Your task to perform on an android device: Go to Reddit.com Image 0: 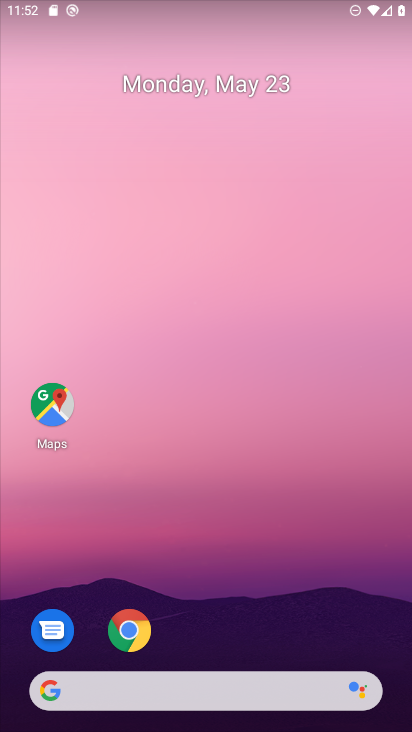
Step 0: click (134, 632)
Your task to perform on an android device: Go to Reddit.com Image 1: 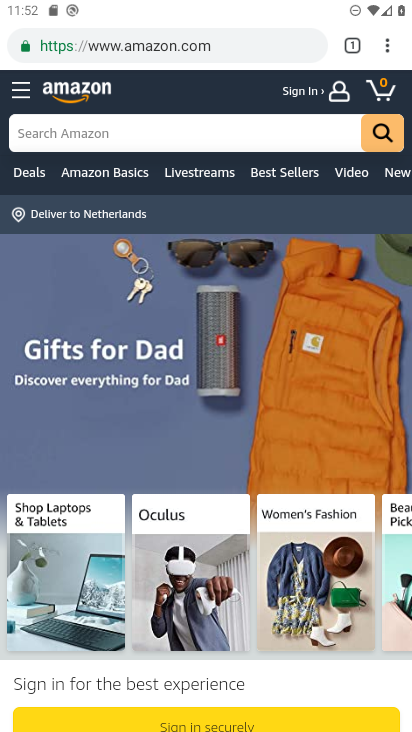
Step 1: click (94, 42)
Your task to perform on an android device: Go to Reddit.com Image 2: 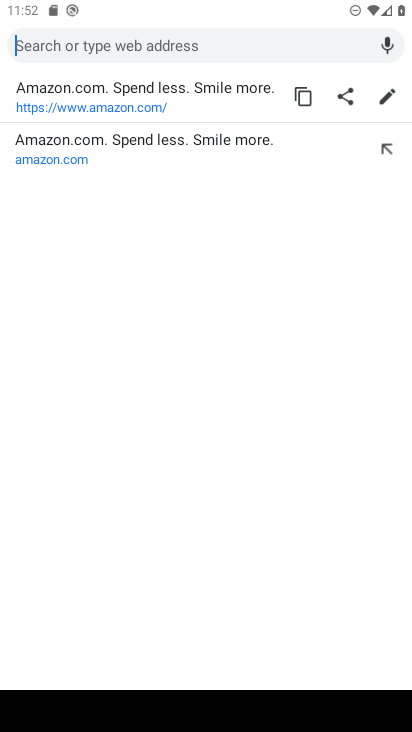
Step 2: type "Reddit.com"
Your task to perform on an android device: Go to Reddit.com Image 3: 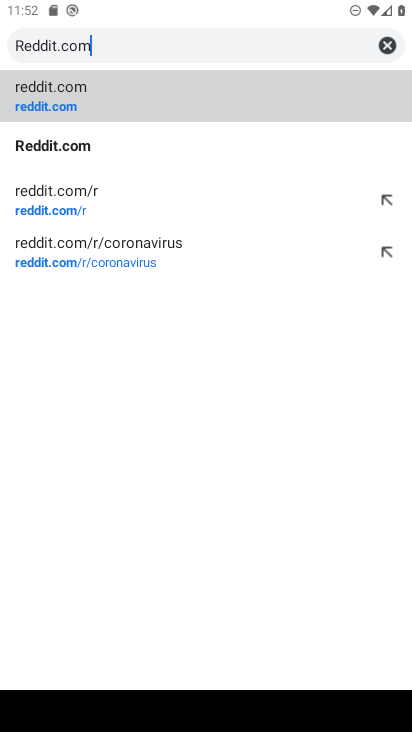
Step 3: click (188, 101)
Your task to perform on an android device: Go to Reddit.com Image 4: 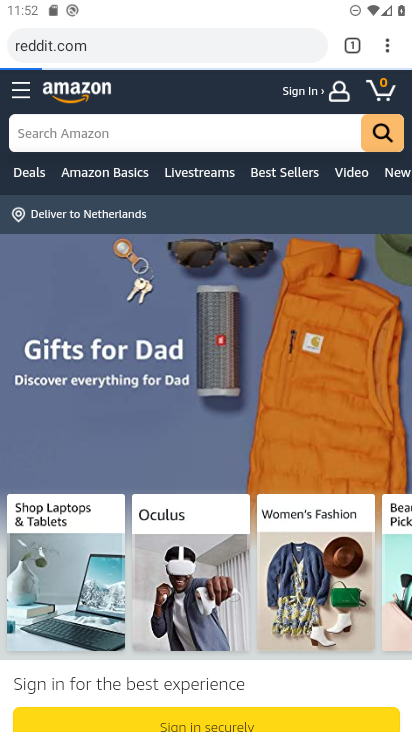
Step 4: click (68, 101)
Your task to perform on an android device: Go to Reddit.com Image 5: 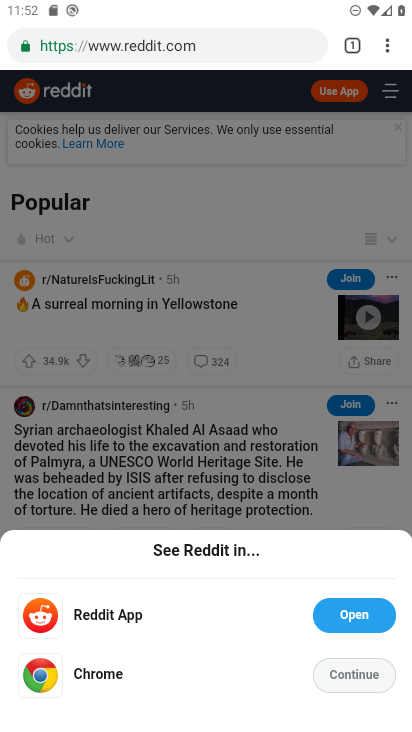
Step 5: task complete